Your task to perform on an android device: What's the news in theFalkland Islands? Image 0: 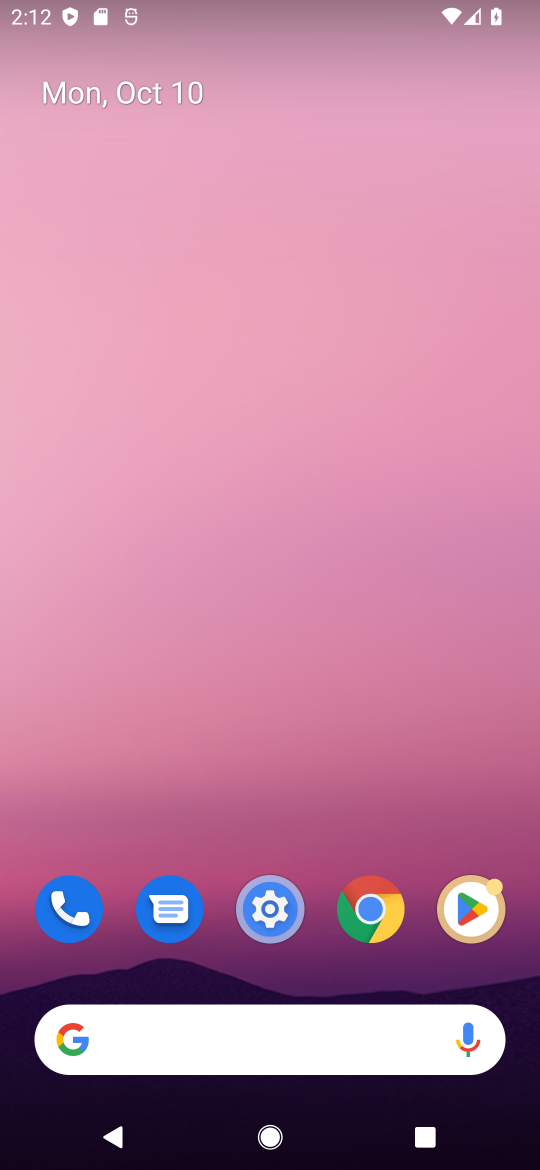
Step 0: click (369, 916)
Your task to perform on an android device: What's the news in theFalkland Islands? Image 1: 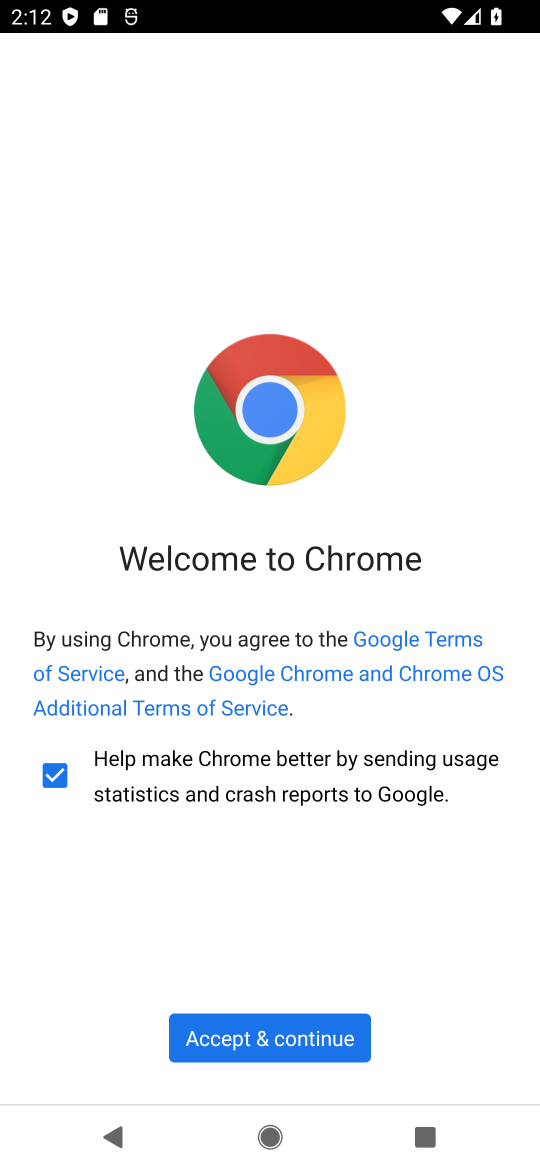
Step 1: click (271, 1043)
Your task to perform on an android device: What's the news in theFalkland Islands? Image 2: 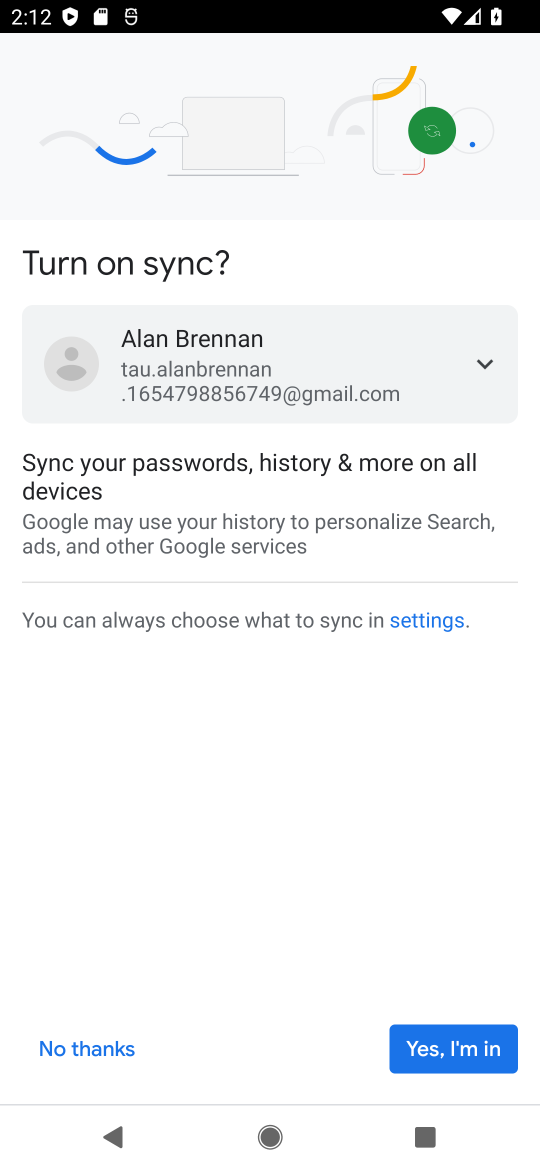
Step 2: click (453, 1051)
Your task to perform on an android device: What's the news in theFalkland Islands? Image 3: 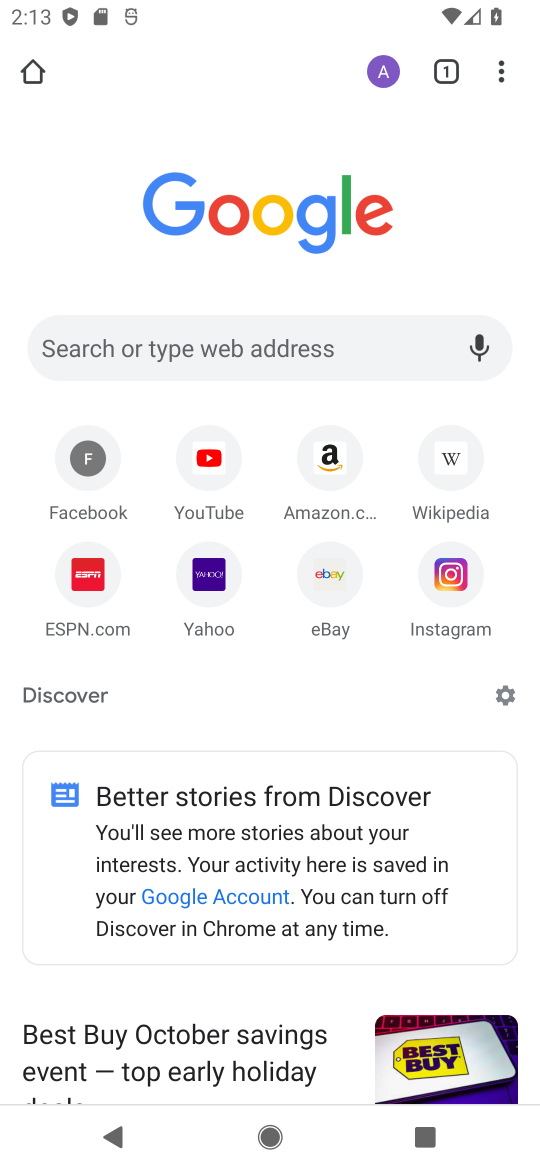
Step 3: click (161, 351)
Your task to perform on an android device: What's the news in theFalkland Islands? Image 4: 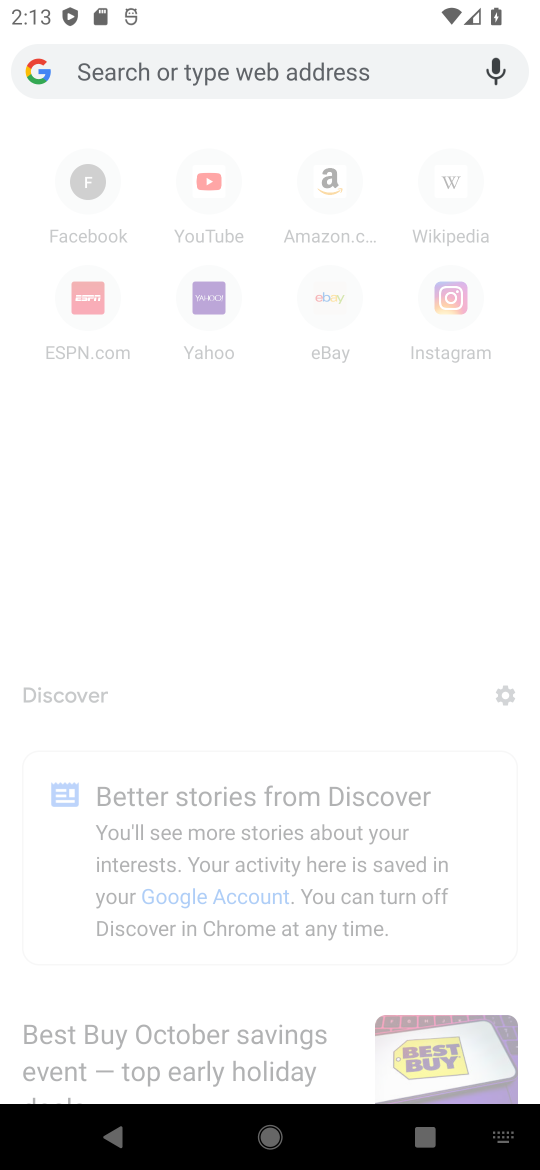
Step 4: type "news in theFalkland Islands?"
Your task to perform on an android device: What's the news in theFalkland Islands? Image 5: 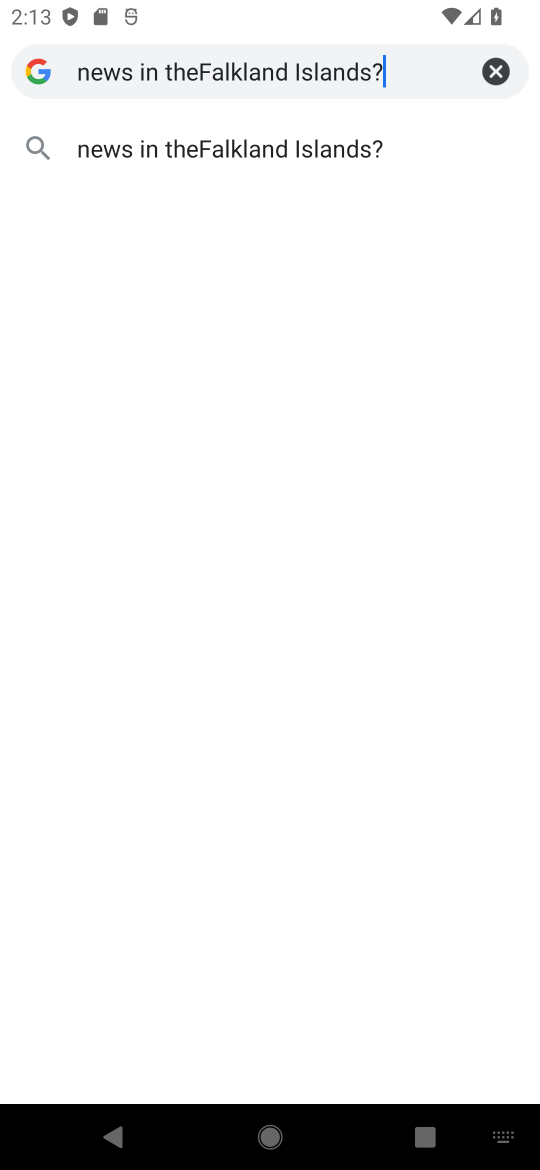
Step 5: click (212, 145)
Your task to perform on an android device: What's the news in theFalkland Islands? Image 6: 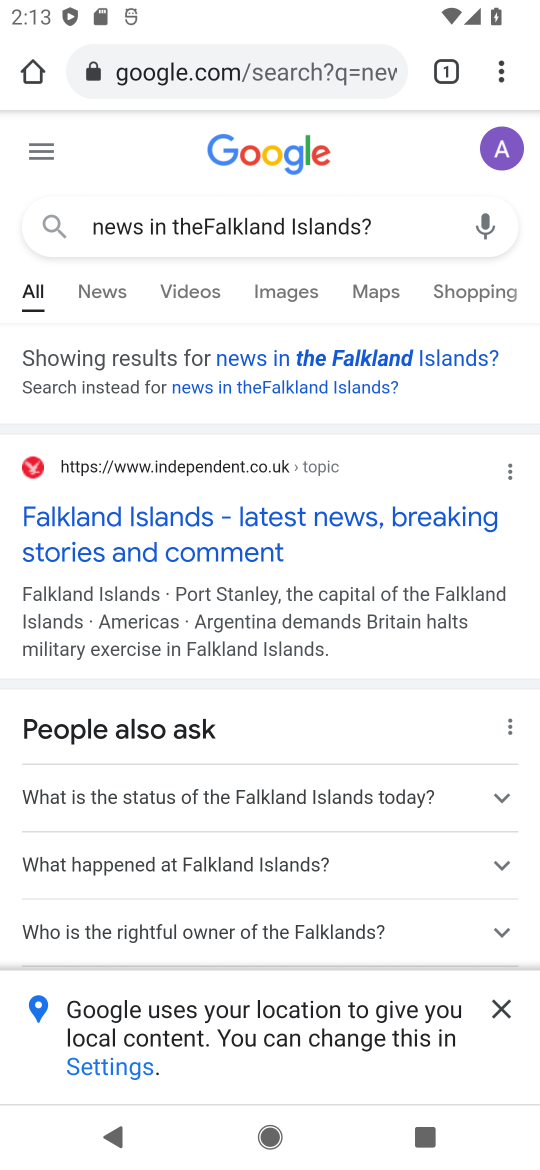
Step 6: click (109, 519)
Your task to perform on an android device: What's the news in theFalkland Islands? Image 7: 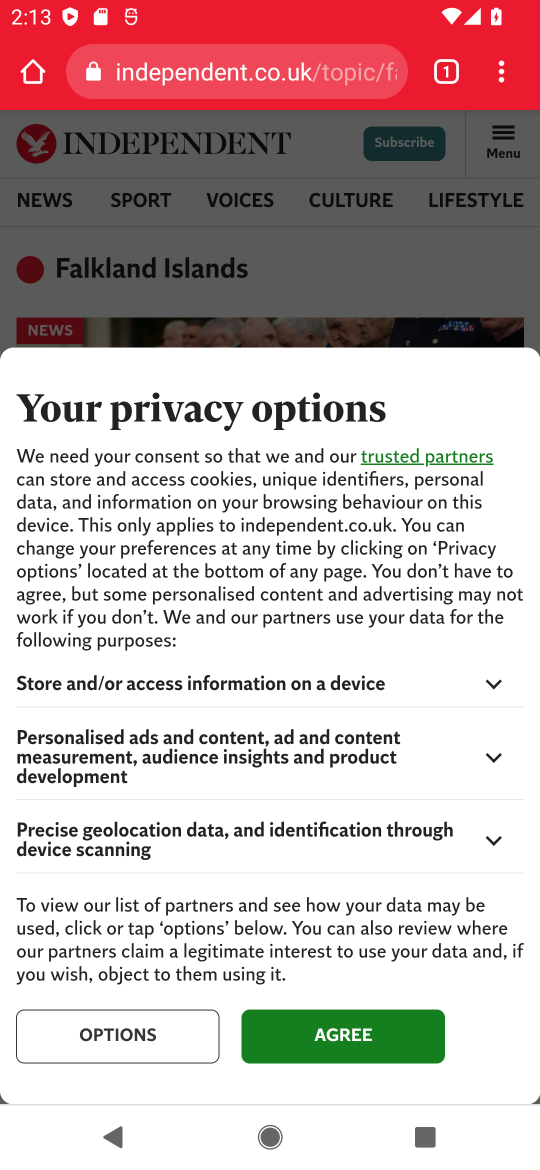
Step 7: click (328, 1038)
Your task to perform on an android device: What's the news in theFalkland Islands? Image 8: 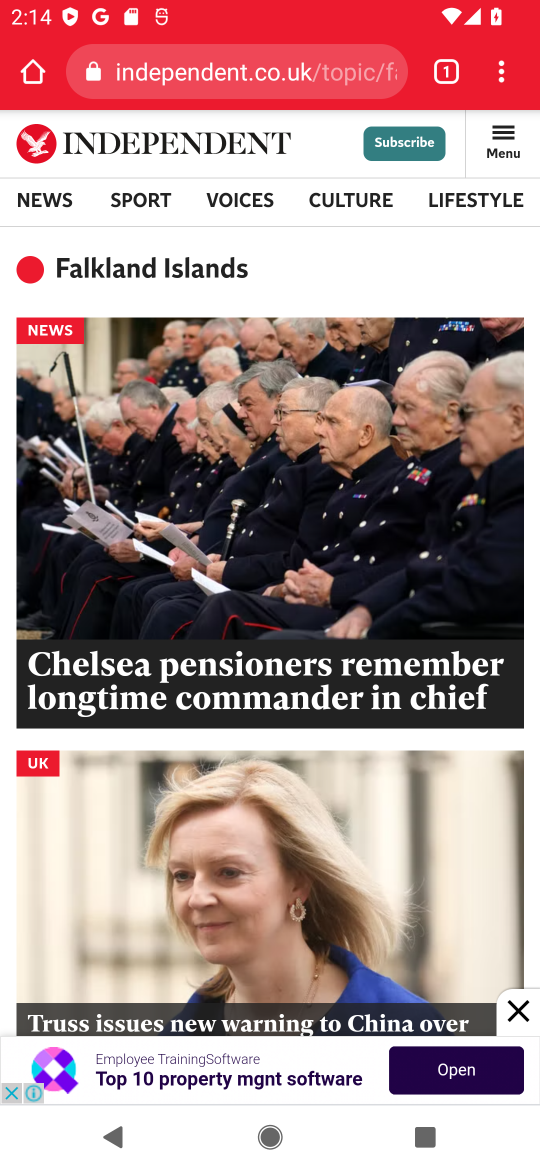
Step 8: click (211, 665)
Your task to perform on an android device: What's the news in theFalkland Islands? Image 9: 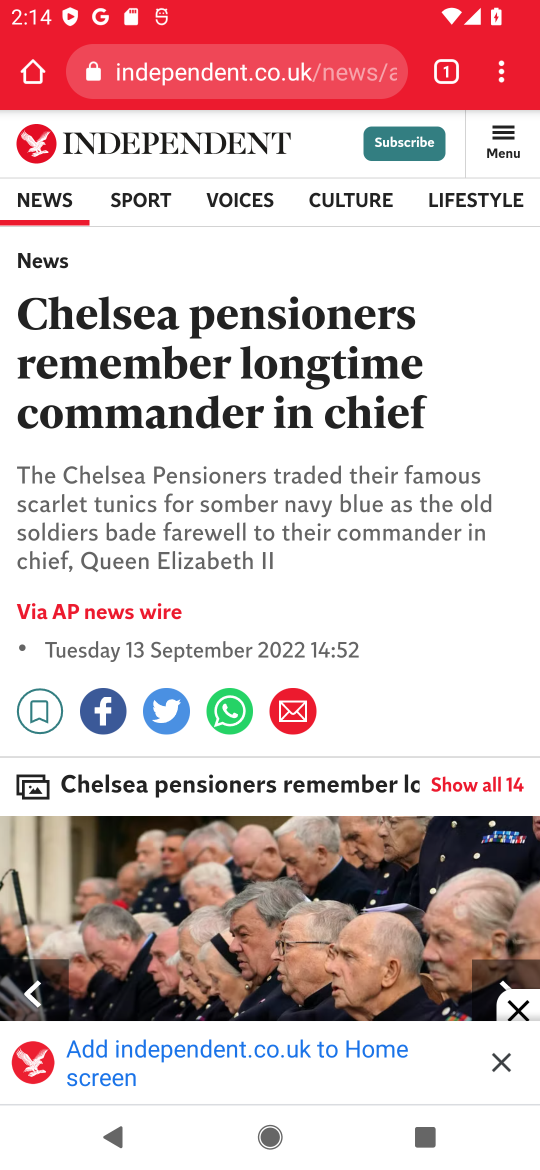
Step 9: task complete